Your task to perform on an android device: Go to Reddit.com Image 0: 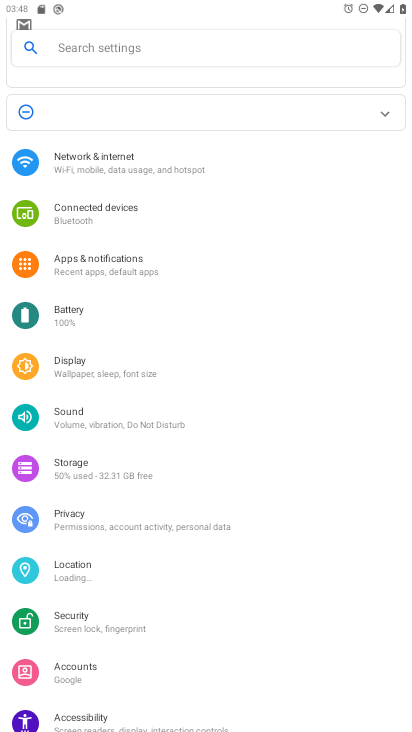
Step 0: press home button
Your task to perform on an android device: Go to Reddit.com Image 1: 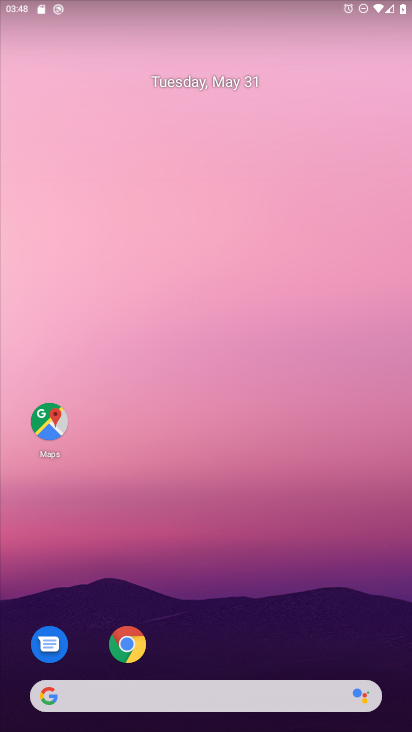
Step 1: click (128, 643)
Your task to perform on an android device: Go to Reddit.com Image 2: 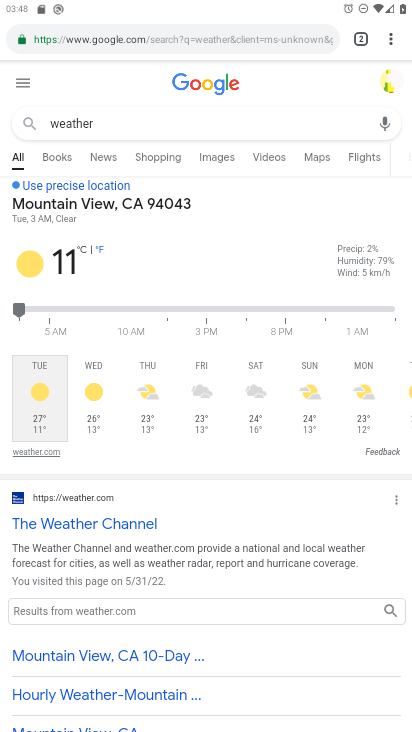
Step 2: click (162, 32)
Your task to perform on an android device: Go to Reddit.com Image 3: 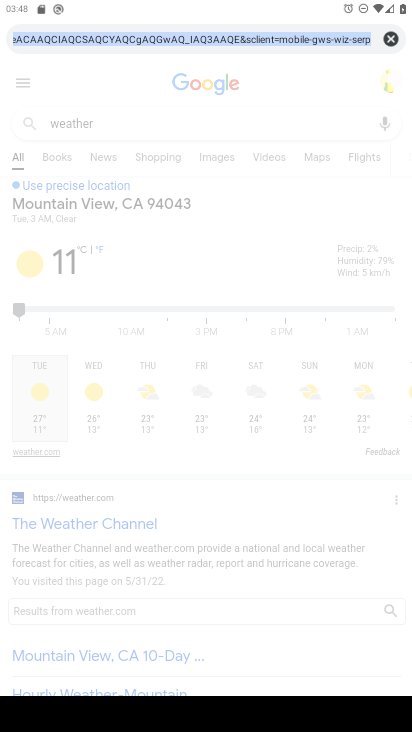
Step 3: type "reddit.com"
Your task to perform on an android device: Go to Reddit.com Image 4: 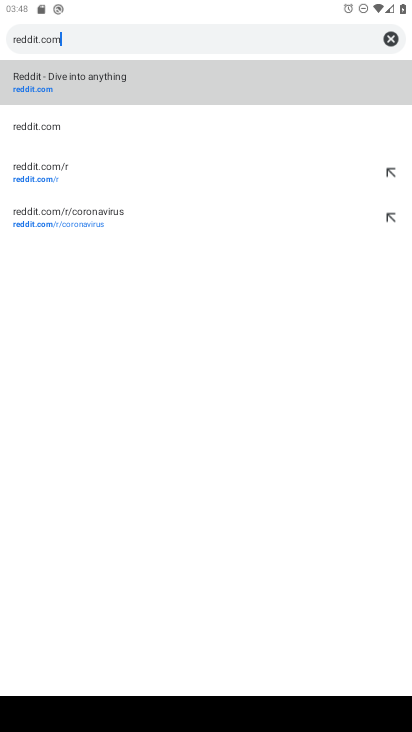
Step 4: click (42, 82)
Your task to perform on an android device: Go to Reddit.com Image 5: 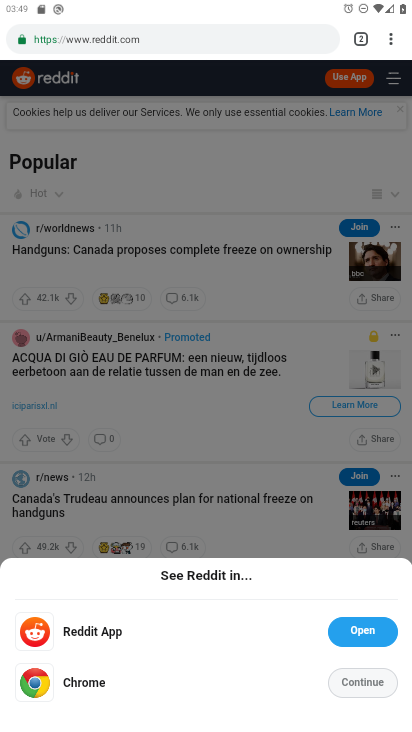
Step 5: task complete